Your task to perform on an android device: Show me popular games on the Play Store Image 0: 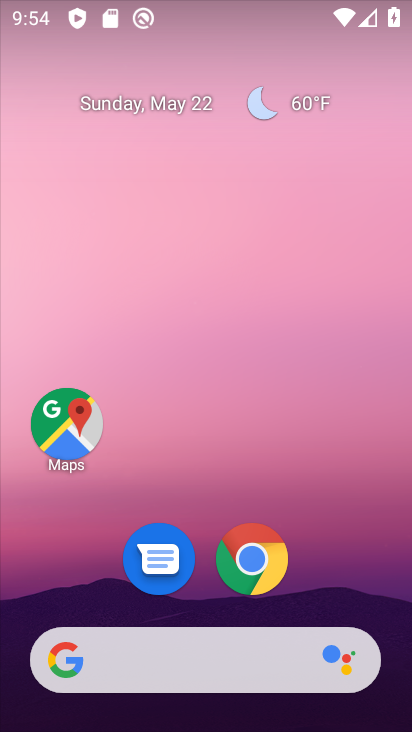
Step 0: drag from (326, 555) to (319, 61)
Your task to perform on an android device: Show me popular games on the Play Store Image 1: 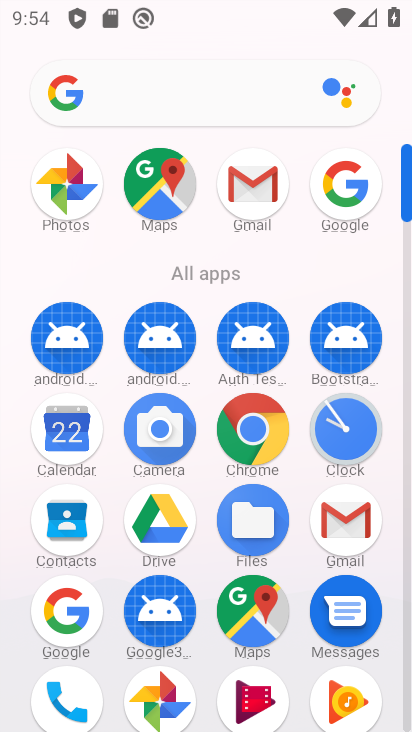
Step 1: drag from (135, 624) to (191, 162)
Your task to perform on an android device: Show me popular games on the Play Store Image 2: 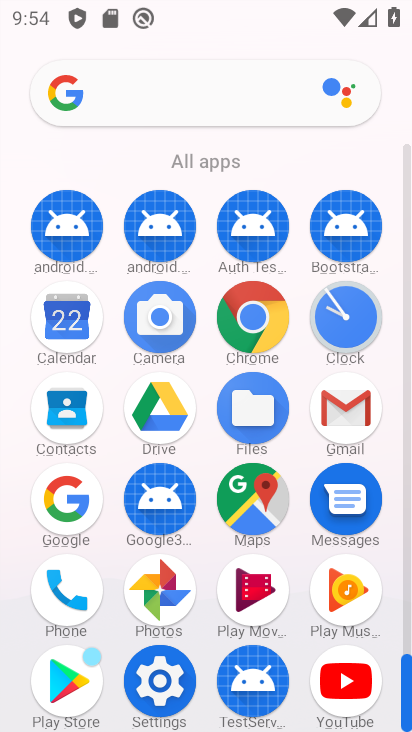
Step 2: click (81, 670)
Your task to perform on an android device: Show me popular games on the Play Store Image 3: 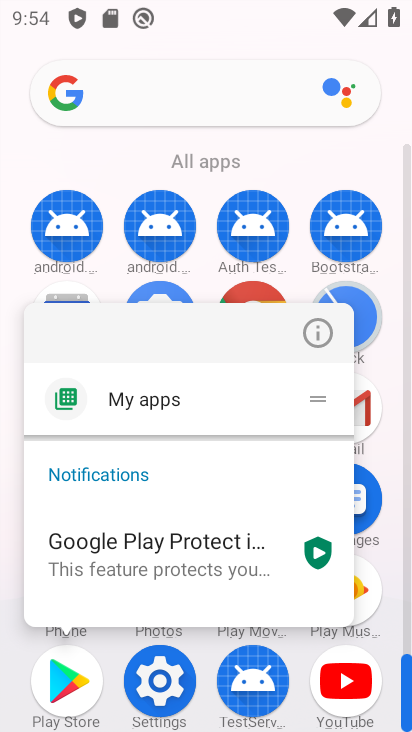
Step 3: click (86, 663)
Your task to perform on an android device: Show me popular games on the Play Store Image 4: 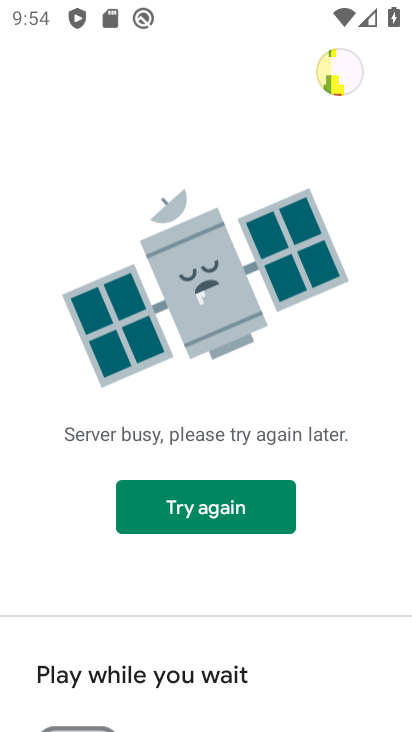
Step 4: click (258, 525)
Your task to perform on an android device: Show me popular games on the Play Store Image 5: 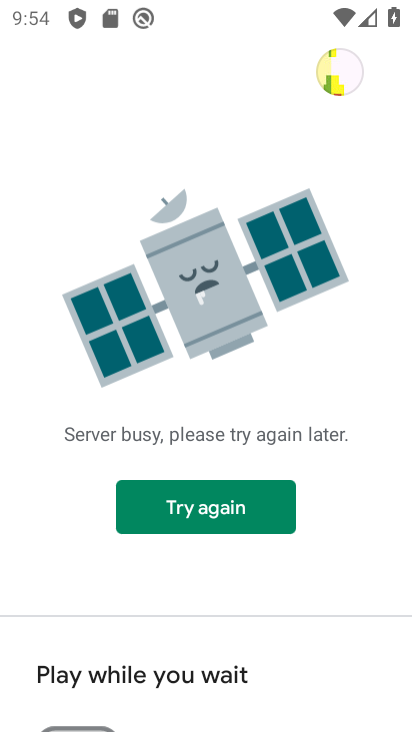
Step 5: click (260, 525)
Your task to perform on an android device: Show me popular games on the Play Store Image 6: 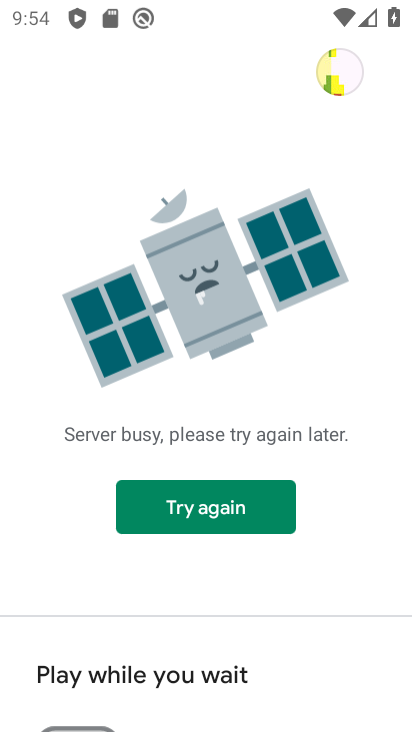
Step 6: click (260, 525)
Your task to perform on an android device: Show me popular games on the Play Store Image 7: 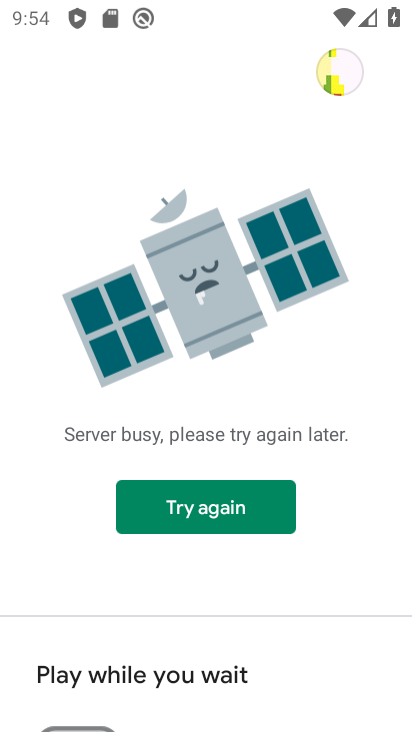
Step 7: task complete